Your task to perform on an android device: make emails show in primary in the gmail app Image 0: 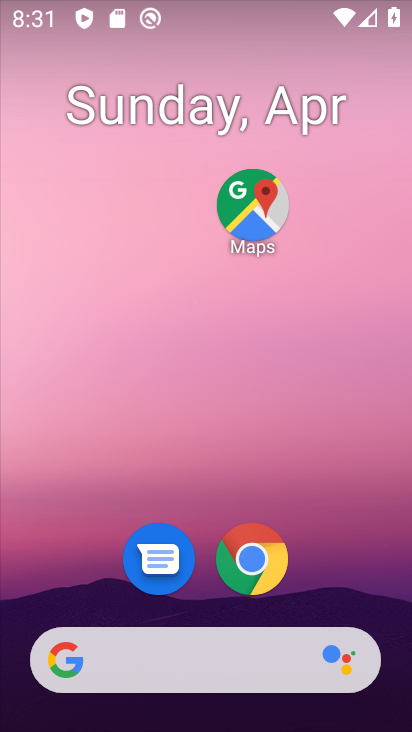
Step 0: drag from (53, 541) to (216, 60)
Your task to perform on an android device: make emails show in primary in the gmail app Image 1: 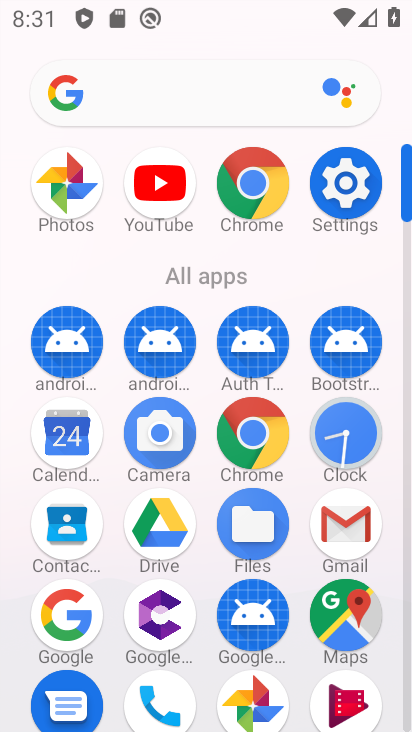
Step 1: click (365, 544)
Your task to perform on an android device: make emails show in primary in the gmail app Image 2: 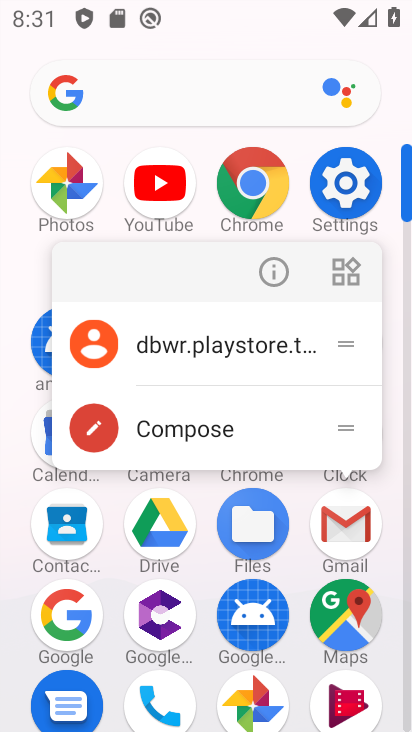
Step 2: click (274, 282)
Your task to perform on an android device: make emails show in primary in the gmail app Image 3: 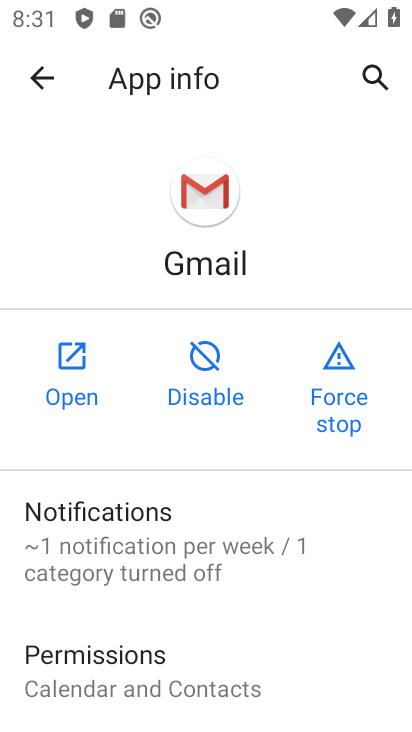
Step 3: click (64, 348)
Your task to perform on an android device: make emails show in primary in the gmail app Image 4: 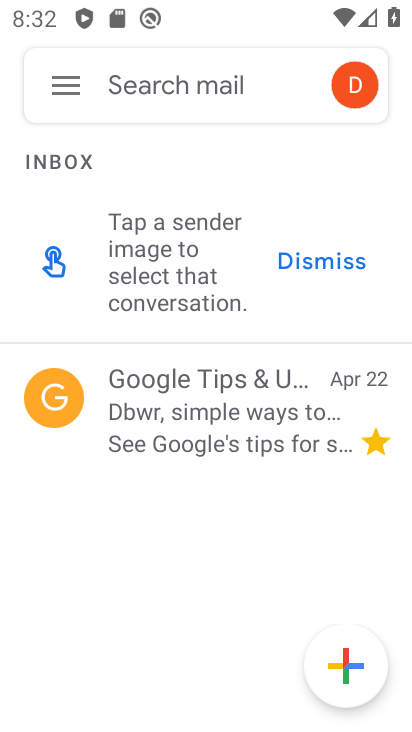
Step 4: click (73, 84)
Your task to perform on an android device: make emails show in primary in the gmail app Image 5: 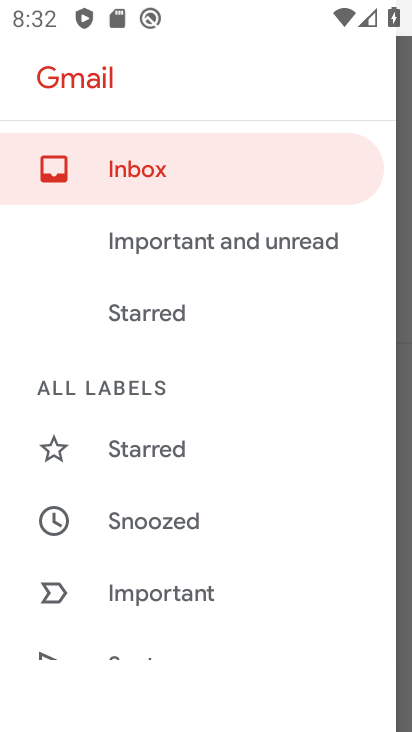
Step 5: task complete